Your task to perform on an android device: Turn off the flashlight Image 0: 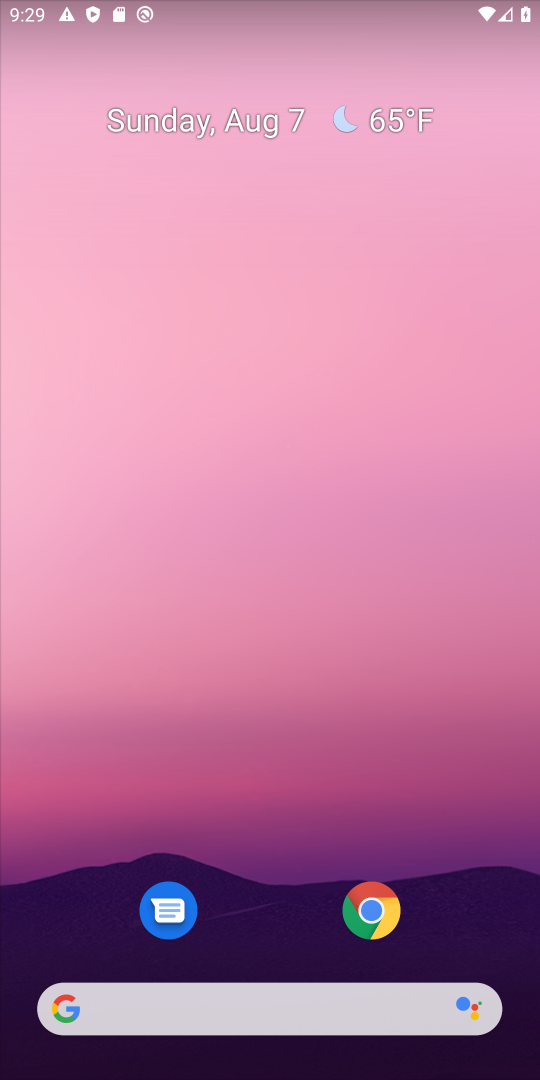
Step 0: drag from (298, 11) to (298, 775)
Your task to perform on an android device: Turn off the flashlight Image 1: 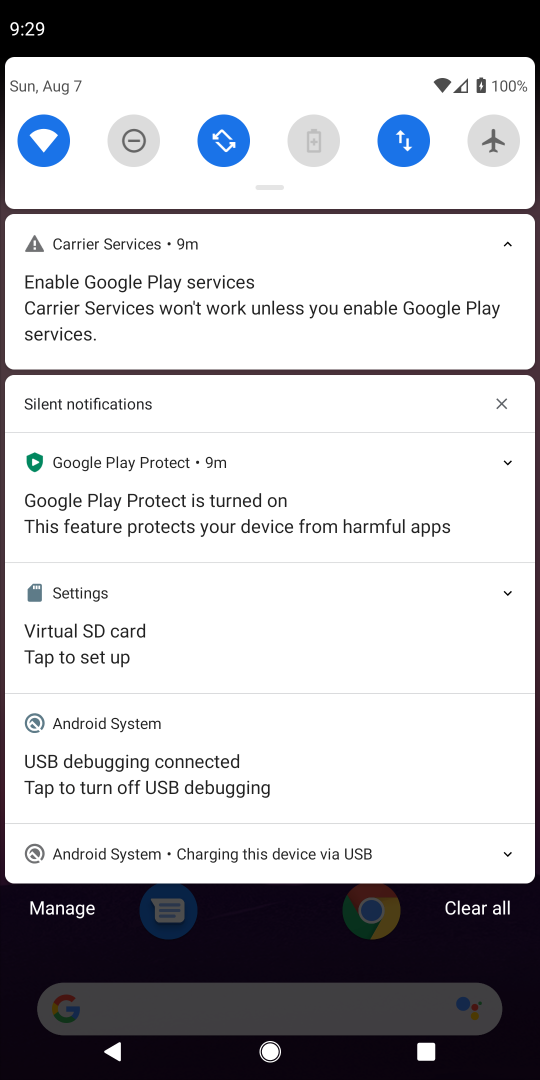
Step 1: drag from (260, 161) to (278, 857)
Your task to perform on an android device: Turn off the flashlight Image 2: 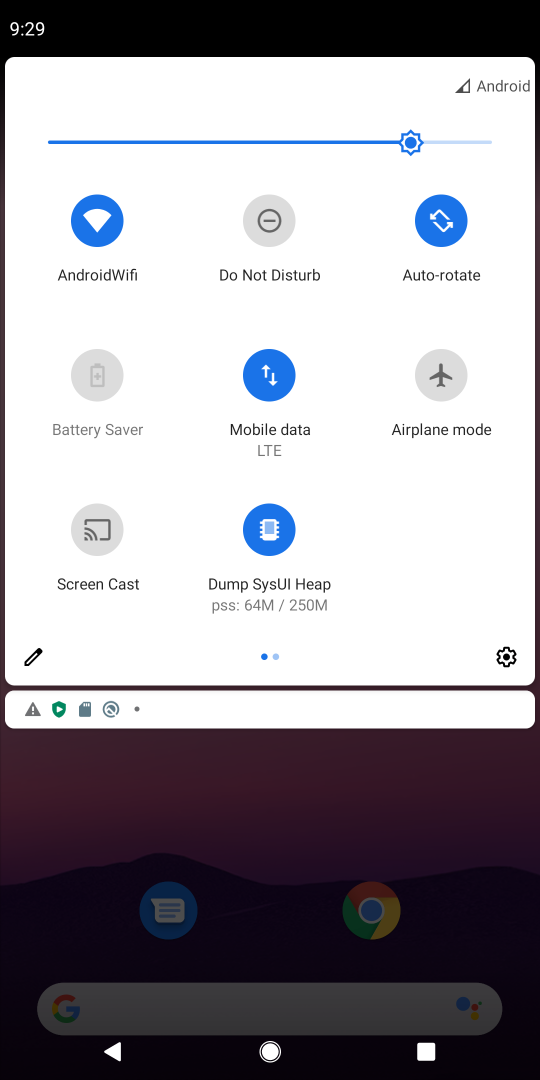
Step 2: drag from (456, 445) to (12, 556)
Your task to perform on an android device: Turn off the flashlight Image 3: 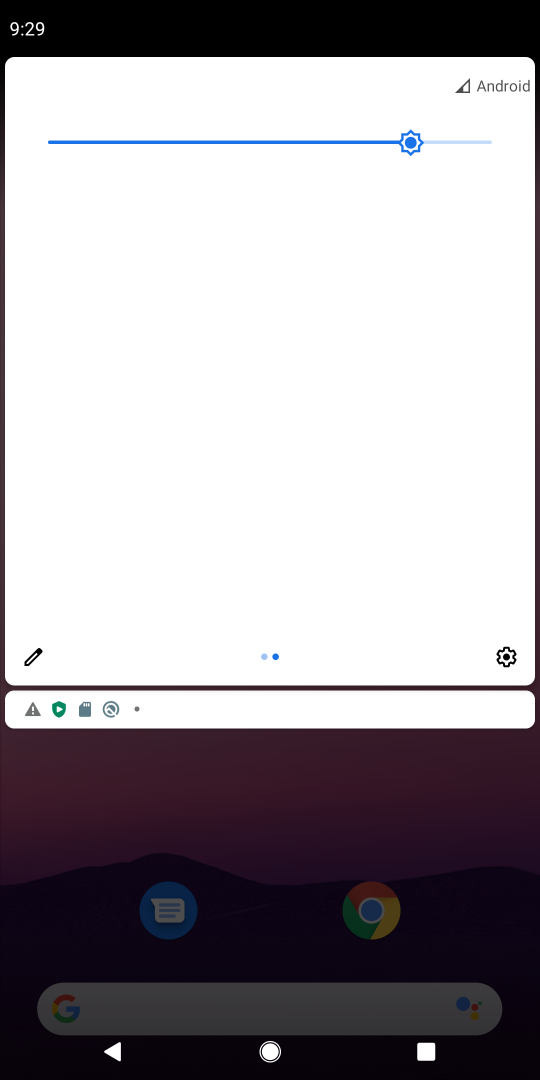
Step 3: click (23, 661)
Your task to perform on an android device: Turn off the flashlight Image 4: 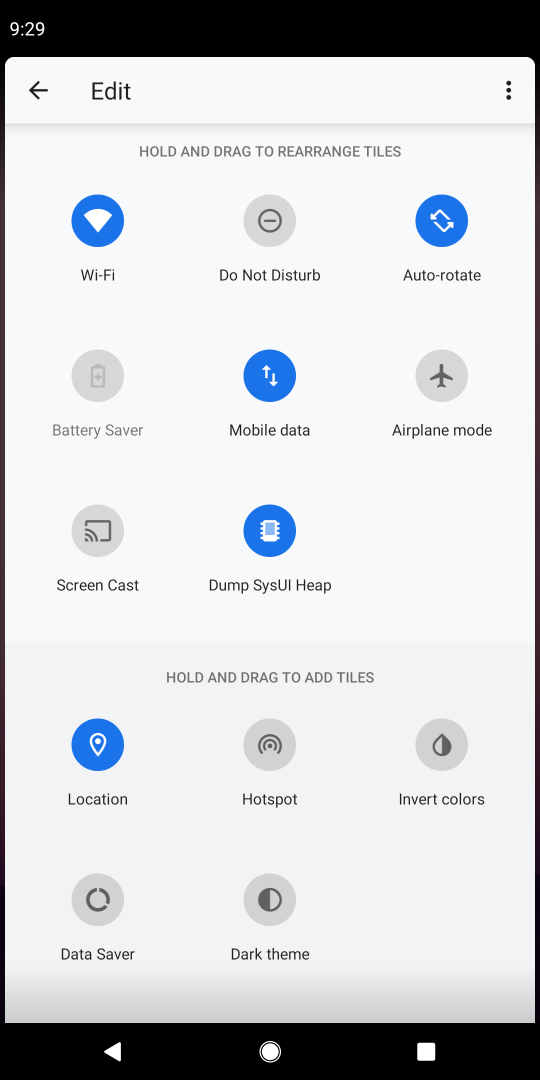
Step 4: task complete